Your task to perform on an android device: turn on bluetooth scan Image 0: 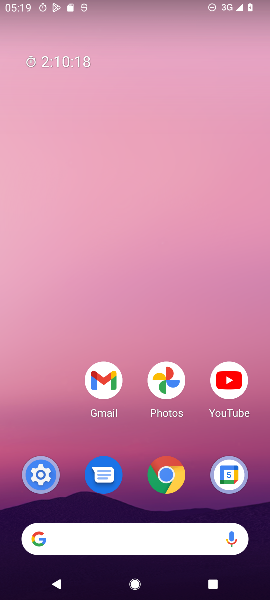
Step 0: press home button
Your task to perform on an android device: turn on bluetooth scan Image 1: 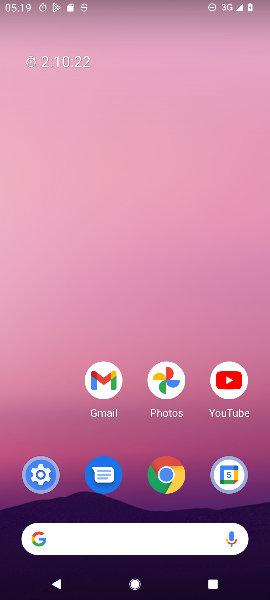
Step 1: drag from (57, 439) to (60, 185)
Your task to perform on an android device: turn on bluetooth scan Image 2: 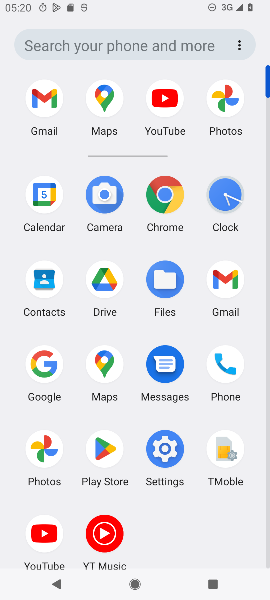
Step 2: click (175, 452)
Your task to perform on an android device: turn on bluetooth scan Image 3: 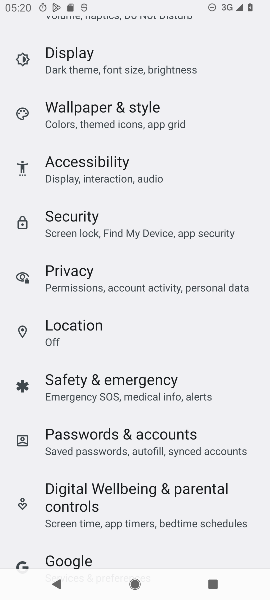
Step 3: drag from (234, 250) to (229, 346)
Your task to perform on an android device: turn on bluetooth scan Image 4: 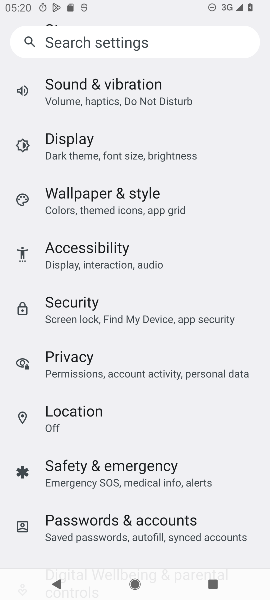
Step 4: drag from (227, 209) to (238, 318)
Your task to perform on an android device: turn on bluetooth scan Image 5: 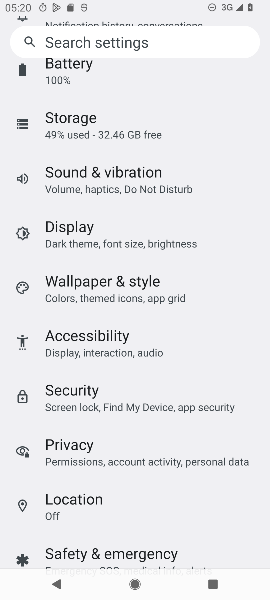
Step 5: drag from (239, 208) to (243, 269)
Your task to perform on an android device: turn on bluetooth scan Image 6: 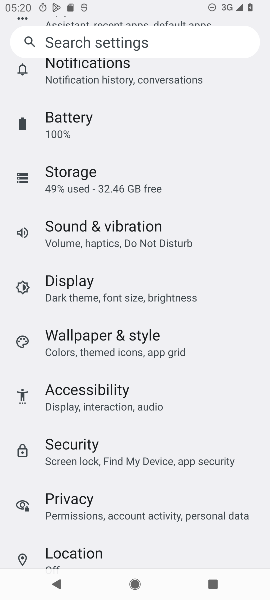
Step 6: drag from (236, 178) to (229, 278)
Your task to perform on an android device: turn on bluetooth scan Image 7: 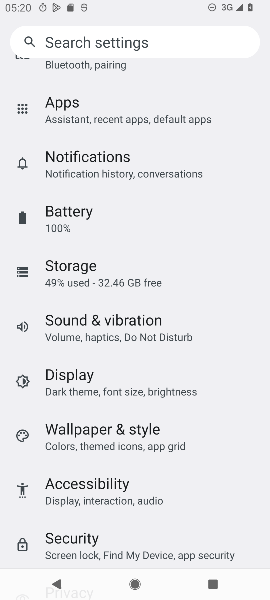
Step 7: drag from (230, 152) to (237, 264)
Your task to perform on an android device: turn on bluetooth scan Image 8: 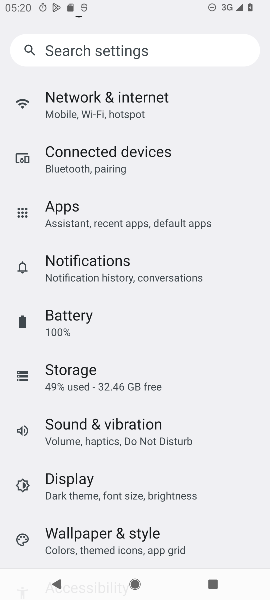
Step 8: drag from (240, 167) to (250, 285)
Your task to perform on an android device: turn on bluetooth scan Image 9: 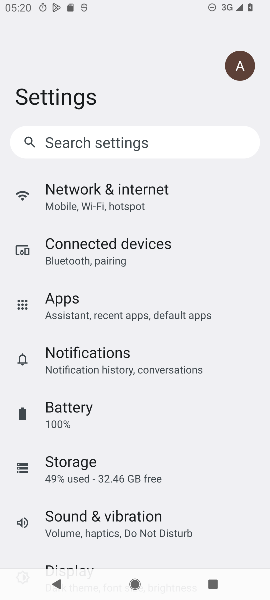
Step 9: drag from (218, 367) to (225, 300)
Your task to perform on an android device: turn on bluetooth scan Image 10: 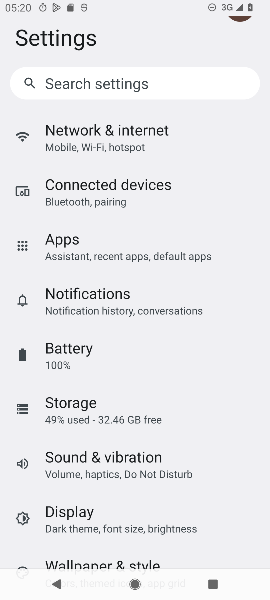
Step 10: drag from (215, 369) to (222, 311)
Your task to perform on an android device: turn on bluetooth scan Image 11: 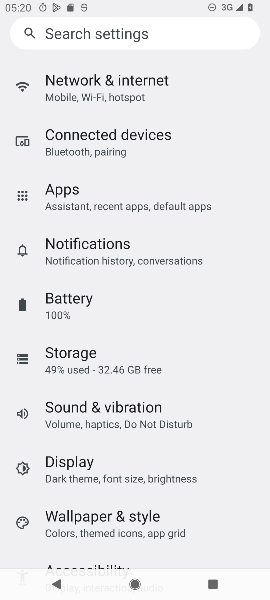
Step 11: drag from (214, 436) to (219, 362)
Your task to perform on an android device: turn on bluetooth scan Image 12: 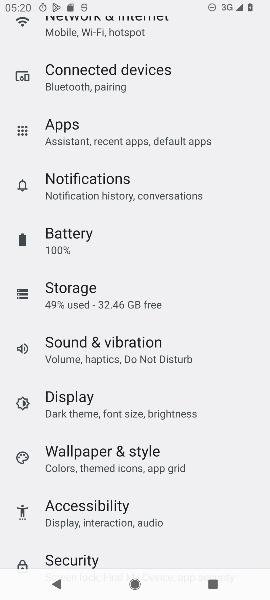
Step 12: drag from (220, 429) to (220, 376)
Your task to perform on an android device: turn on bluetooth scan Image 13: 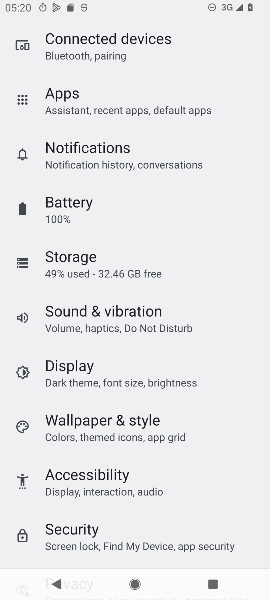
Step 13: drag from (209, 465) to (215, 355)
Your task to perform on an android device: turn on bluetooth scan Image 14: 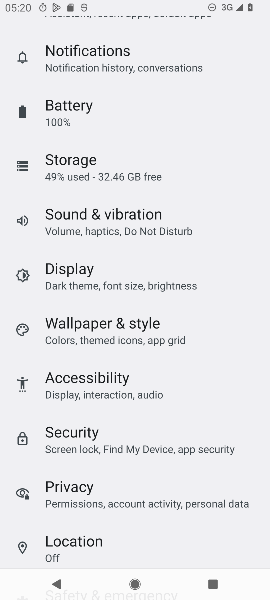
Step 14: drag from (198, 469) to (211, 351)
Your task to perform on an android device: turn on bluetooth scan Image 15: 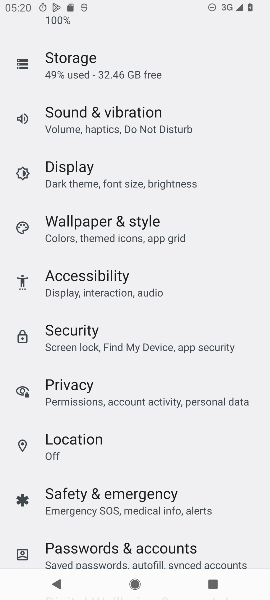
Step 15: click (187, 450)
Your task to perform on an android device: turn on bluetooth scan Image 16: 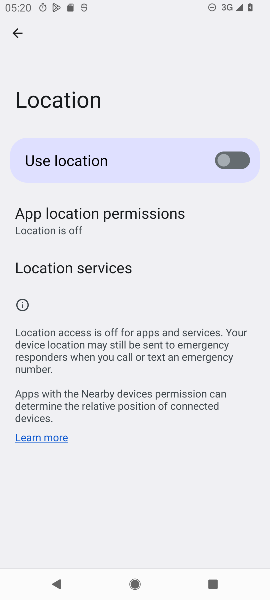
Step 16: click (115, 275)
Your task to perform on an android device: turn on bluetooth scan Image 17: 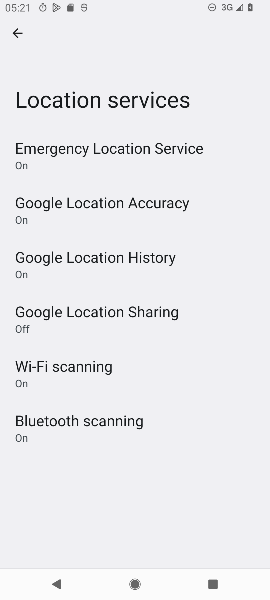
Step 17: task complete